Your task to perform on an android device: turn off picture-in-picture Image 0: 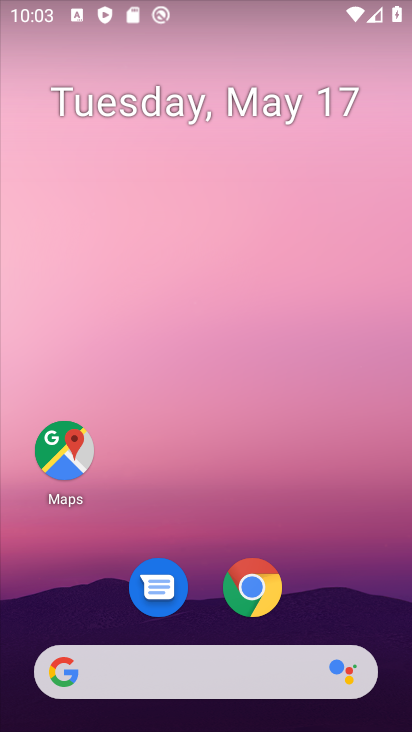
Step 0: drag from (286, 497) to (112, 158)
Your task to perform on an android device: turn off picture-in-picture Image 1: 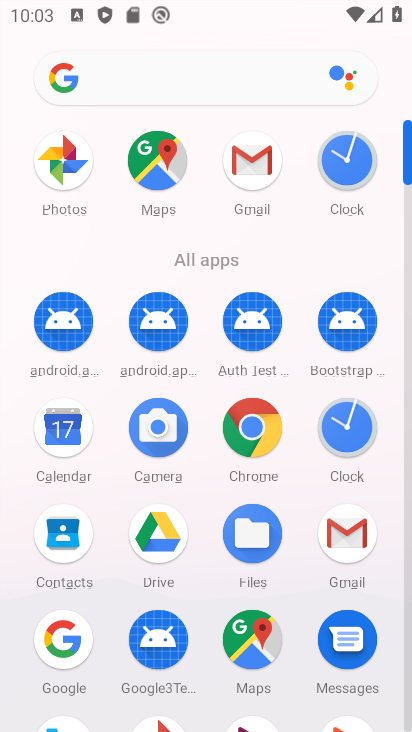
Step 1: drag from (197, 247) to (195, 71)
Your task to perform on an android device: turn off picture-in-picture Image 2: 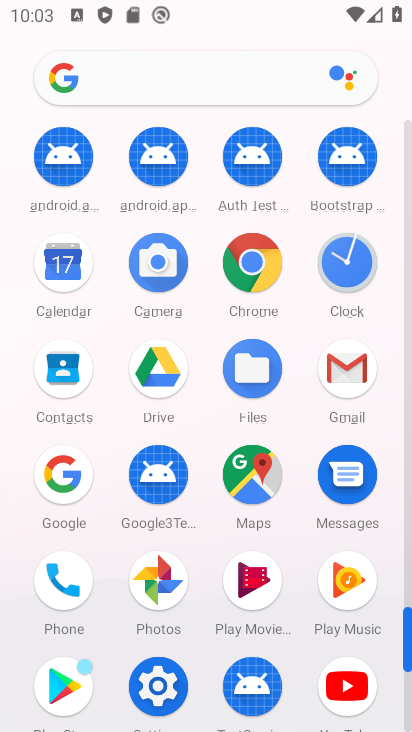
Step 2: drag from (208, 184) to (189, 33)
Your task to perform on an android device: turn off picture-in-picture Image 3: 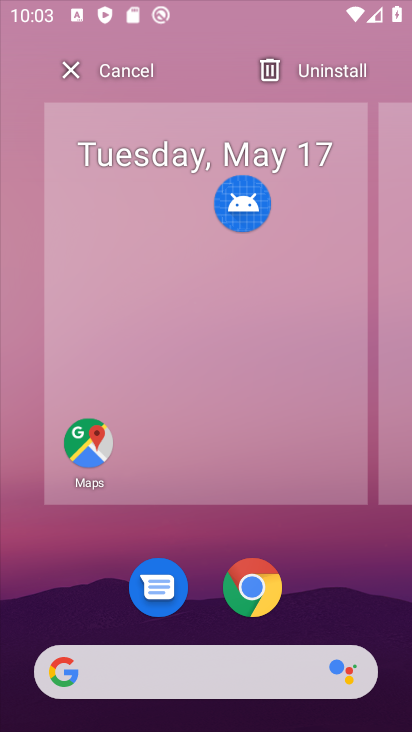
Step 3: click (188, 32)
Your task to perform on an android device: turn off picture-in-picture Image 4: 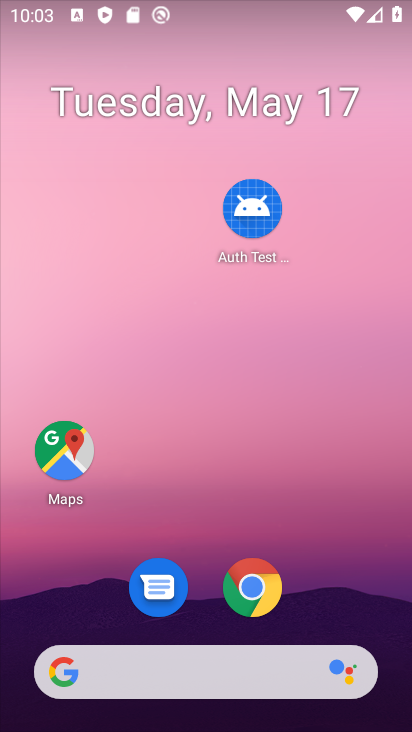
Step 4: drag from (189, 529) to (113, 133)
Your task to perform on an android device: turn off picture-in-picture Image 5: 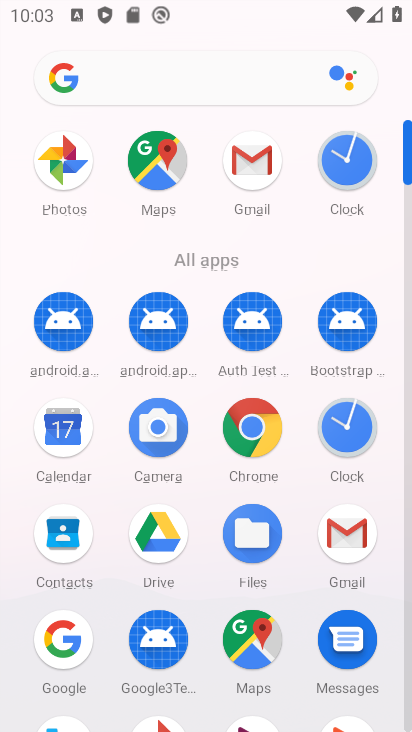
Step 5: drag from (194, 249) to (192, 69)
Your task to perform on an android device: turn off picture-in-picture Image 6: 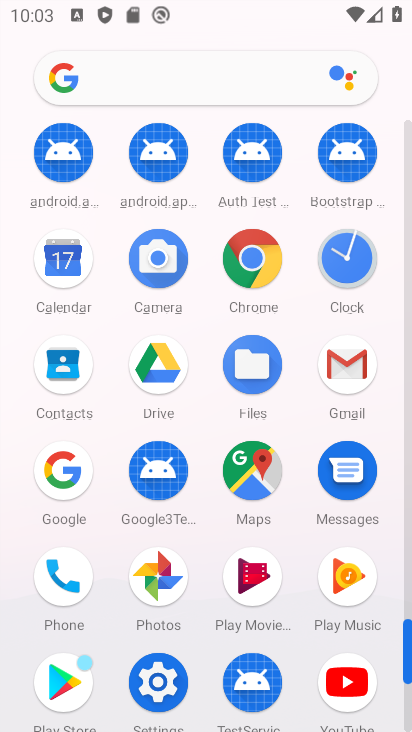
Step 6: click (173, 685)
Your task to perform on an android device: turn off picture-in-picture Image 7: 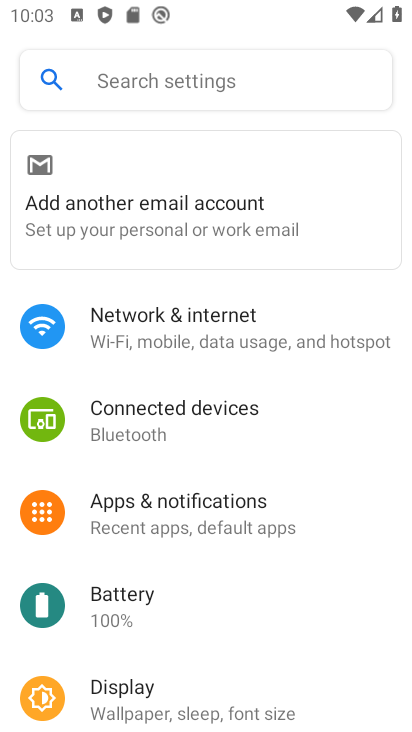
Step 7: click (127, 521)
Your task to perform on an android device: turn off picture-in-picture Image 8: 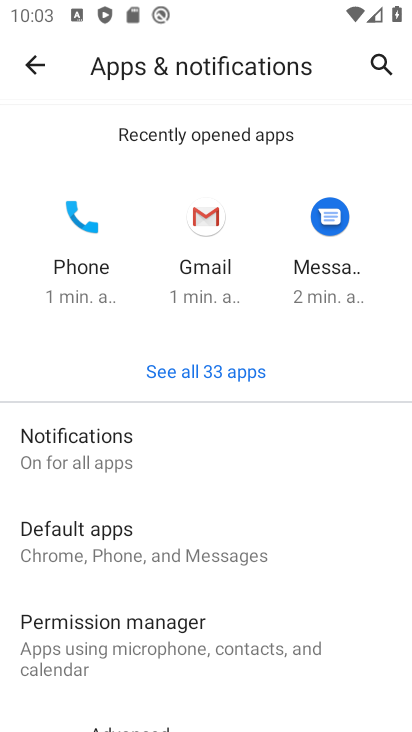
Step 8: click (137, 448)
Your task to perform on an android device: turn off picture-in-picture Image 9: 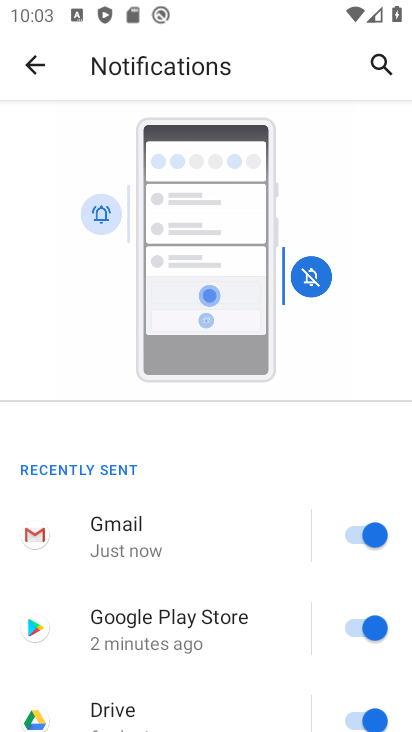
Step 9: drag from (159, 537) to (101, 203)
Your task to perform on an android device: turn off picture-in-picture Image 10: 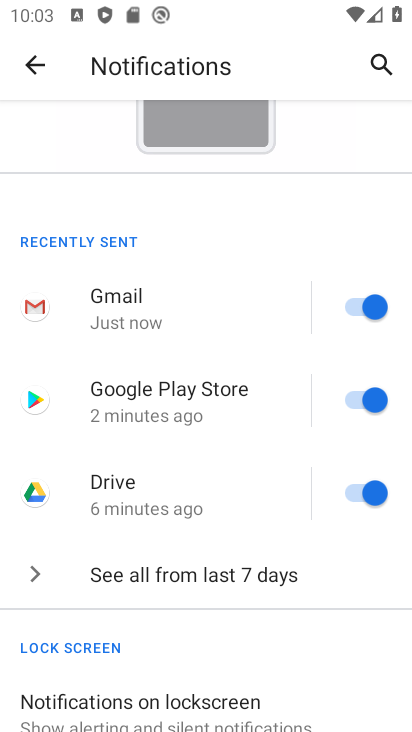
Step 10: drag from (151, 705) to (118, 270)
Your task to perform on an android device: turn off picture-in-picture Image 11: 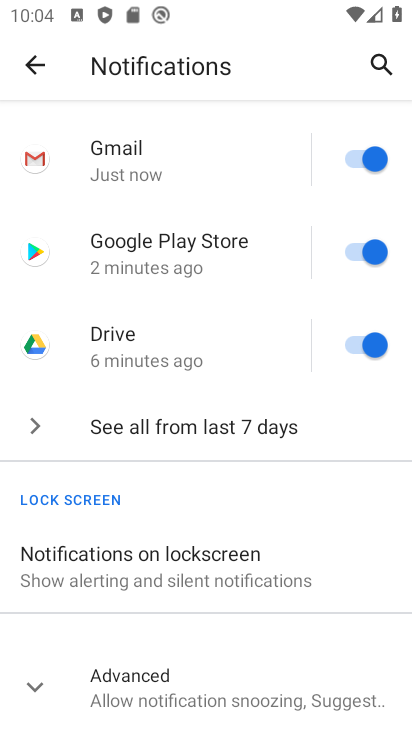
Step 11: click (26, 75)
Your task to perform on an android device: turn off picture-in-picture Image 12: 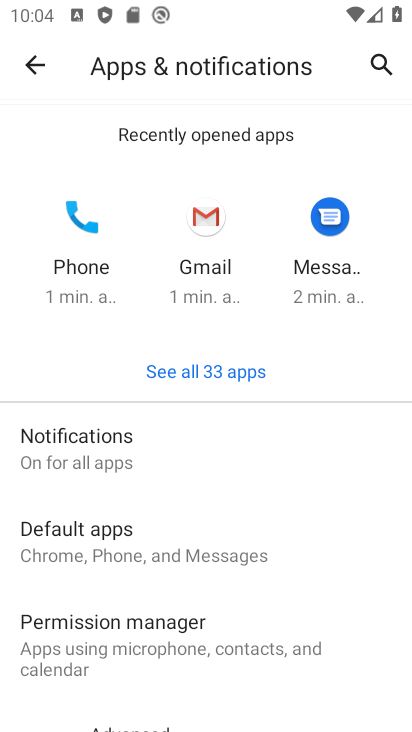
Step 12: drag from (154, 581) to (90, 189)
Your task to perform on an android device: turn off picture-in-picture Image 13: 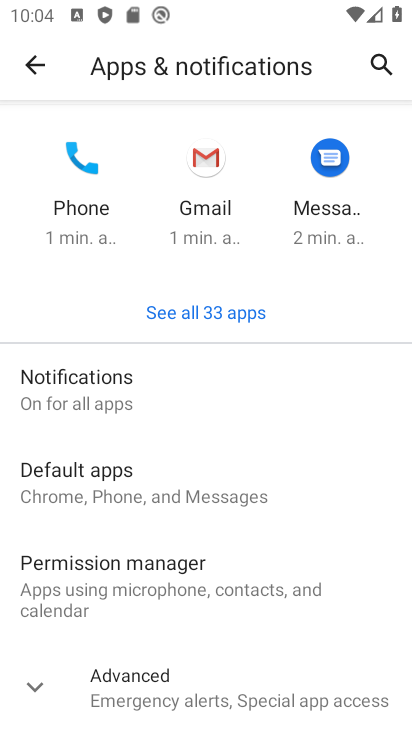
Step 13: click (155, 679)
Your task to perform on an android device: turn off picture-in-picture Image 14: 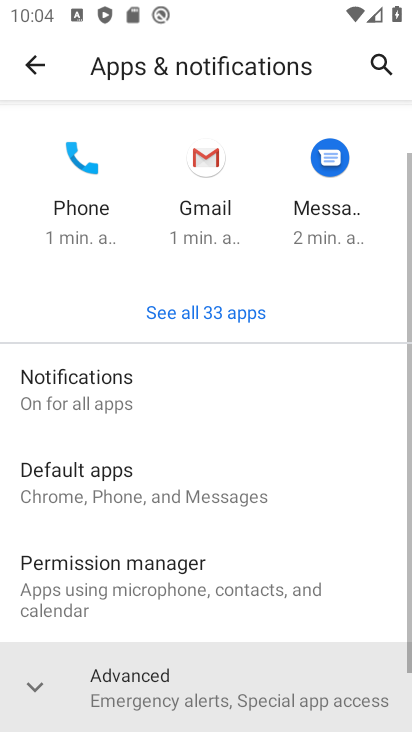
Step 14: drag from (181, 625) to (142, 252)
Your task to perform on an android device: turn off picture-in-picture Image 15: 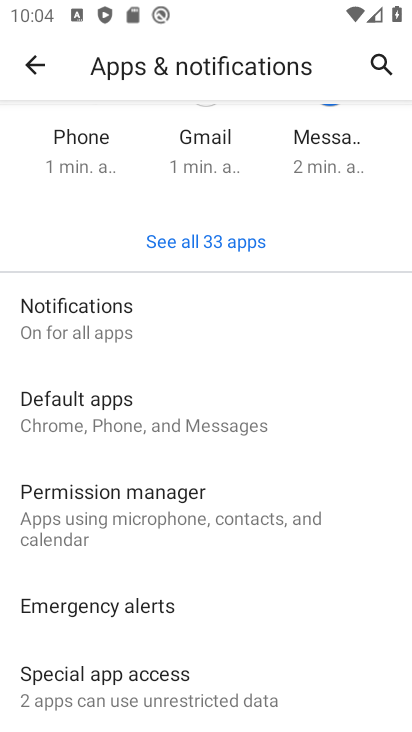
Step 15: click (170, 692)
Your task to perform on an android device: turn off picture-in-picture Image 16: 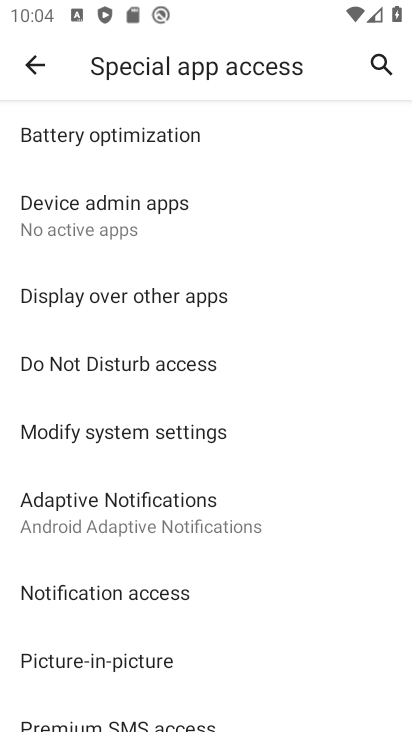
Step 16: click (153, 668)
Your task to perform on an android device: turn off picture-in-picture Image 17: 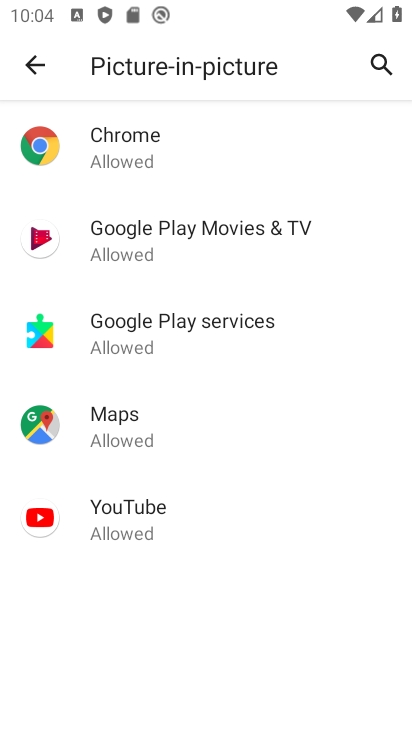
Step 17: click (167, 233)
Your task to perform on an android device: turn off picture-in-picture Image 18: 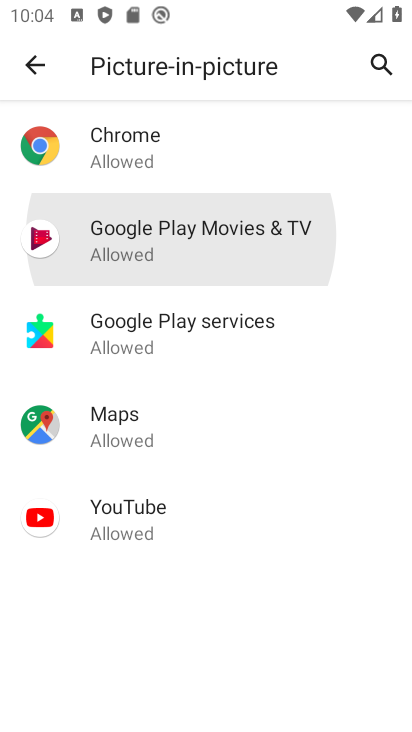
Step 18: click (156, 245)
Your task to perform on an android device: turn off picture-in-picture Image 19: 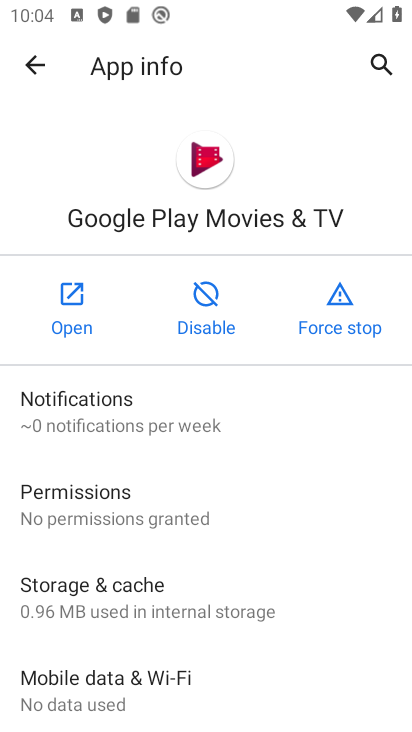
Step 19: click (24, 68)
Your task to perform on an android device: turn off picture-in-picture Image 20: 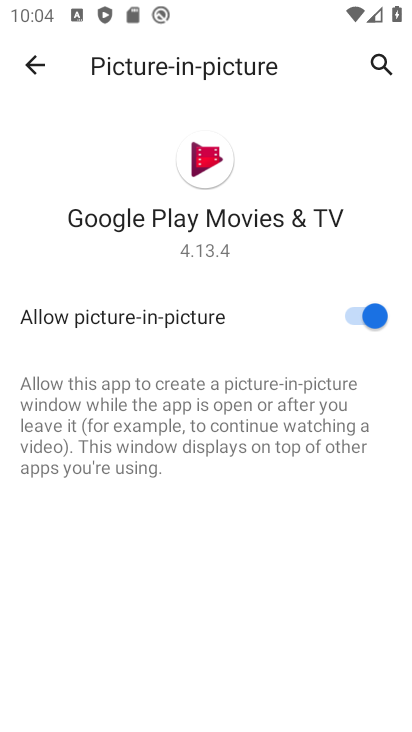
Step 20: click (360, 322)
Your task to perform on an android device: turn off picture-in-picture Image 21: 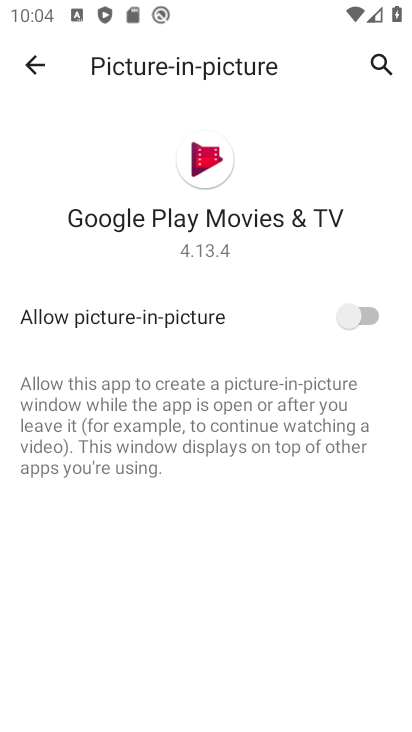
Step 21: task complete